Your task to perform on an android device: turn pop-ups off in chrome Image 0: 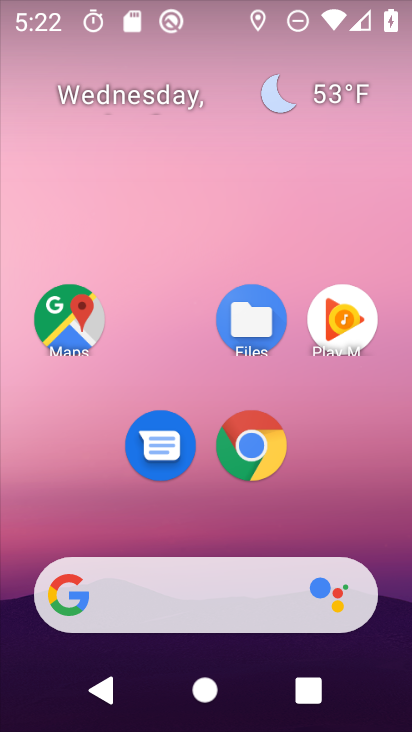
Step 0: drag from (303, 536) to (244, 5)
Your task to perform on an android device: turn pop-ups off in chrome Image 1: 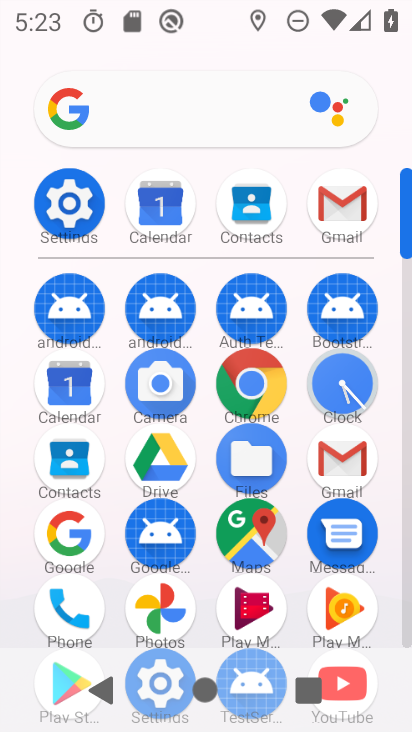
Step 1: click (270, 394)
Your task to perform on an android device: turn pop-ups off in chrome Image 2: 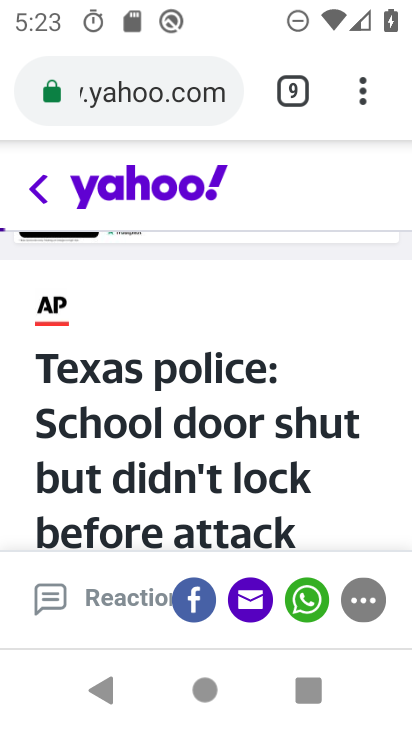
Step 2: click (359, 88)
Your task to perform on an android device: turn pop-ups off in chrome Image 3: 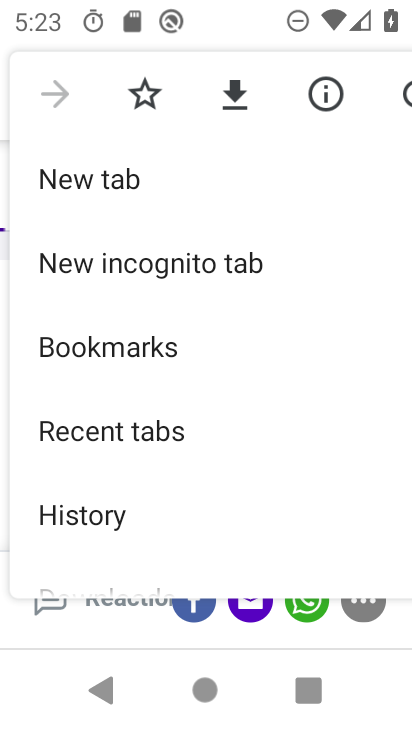
Step 3: drag from (274, 467) to (266, 231)
Your task to perform on an android device: turn pop-ups off in chrome Image 4: 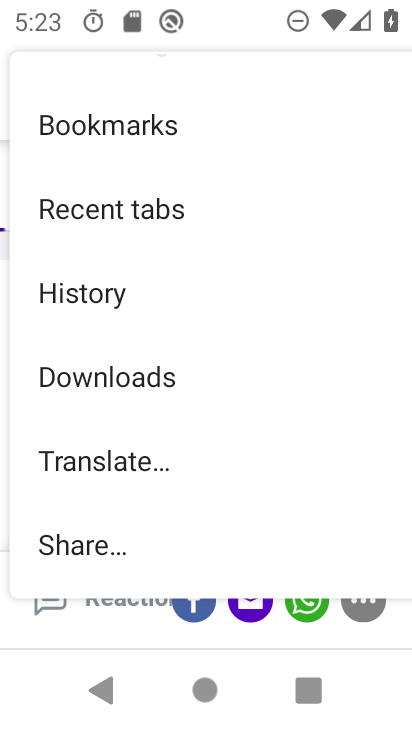
Step 4: drag from (242, 584) to (234, 322)
Your task to perform on an android device: turn pop-ups off in chrome Image 5: 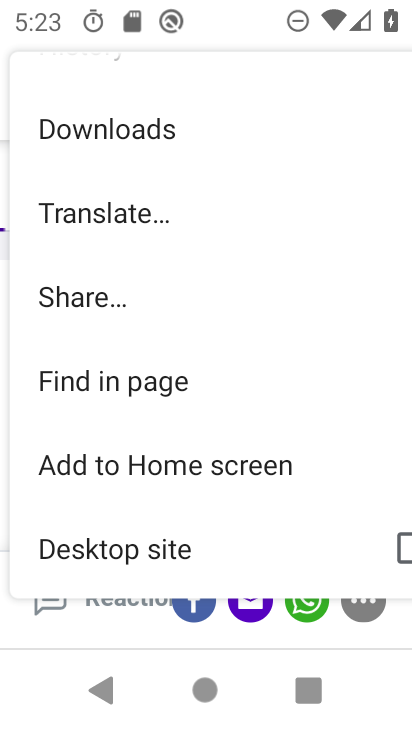
Step 5: drag from (268, 545) to (288, 260)
Your task to perform on an android device: turn pop-ups off in chrome Image 6: 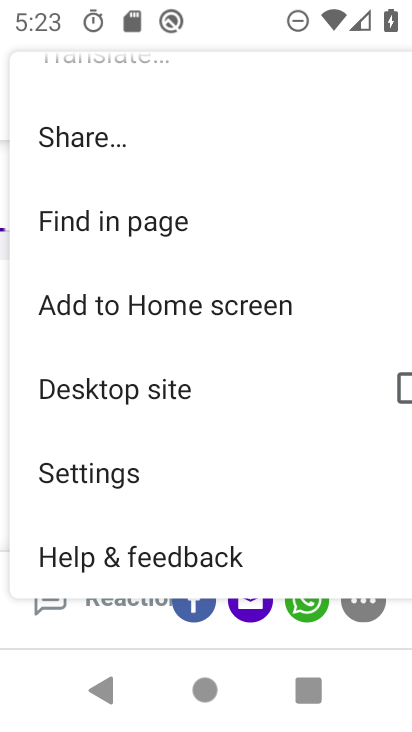
Step 6: click (141, 465)
Your task to perform on an android device: turn pop-ups off in chrome Image 7: 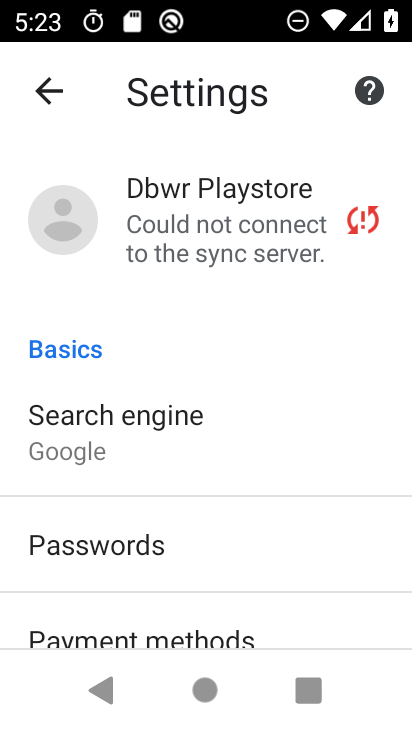
Step 7: drag from (174, 570) to (172, 183)
Your task to perform on an android device: turn pop-ups off in chrome Image 8: 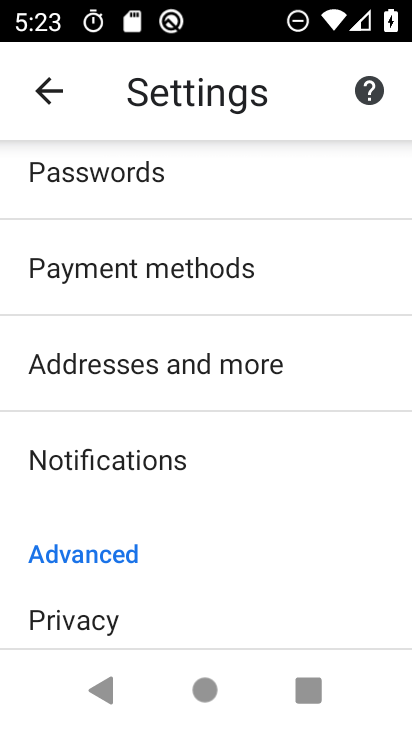
Step 8: drag from (315, 532) to (304, 244)
Your task to perform on an android device: turn pop-ups off in chrome Image 9: 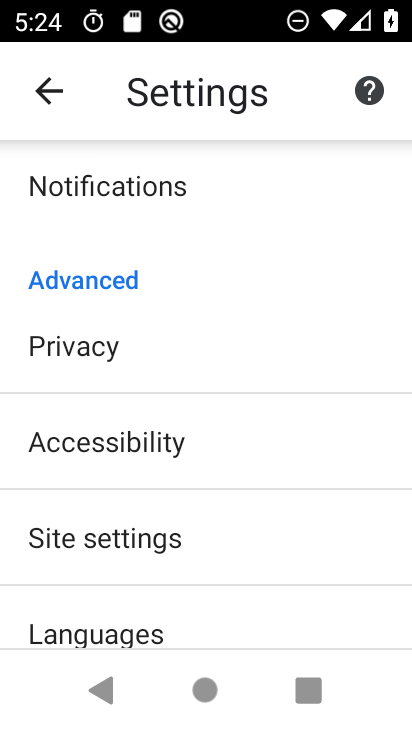
Step 9: click (255, 540)
Your task to perform on an android device: turn pop-ups off in chrome Image 10: 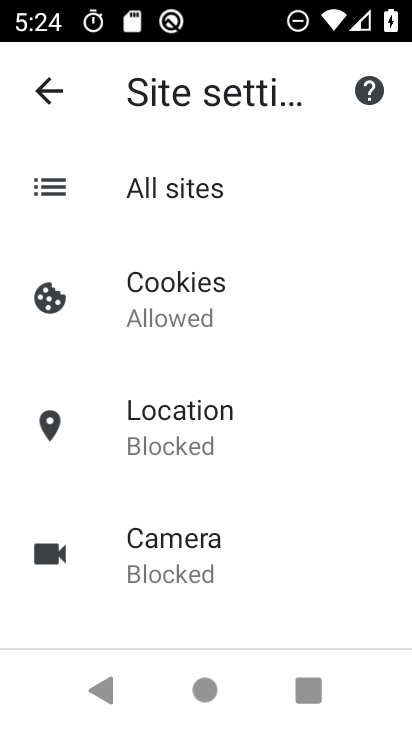
Step 10: drag from (255, 540) to (242, 227)
Your task to perform on an android device: turn pop-ups off in chrome Image 11: 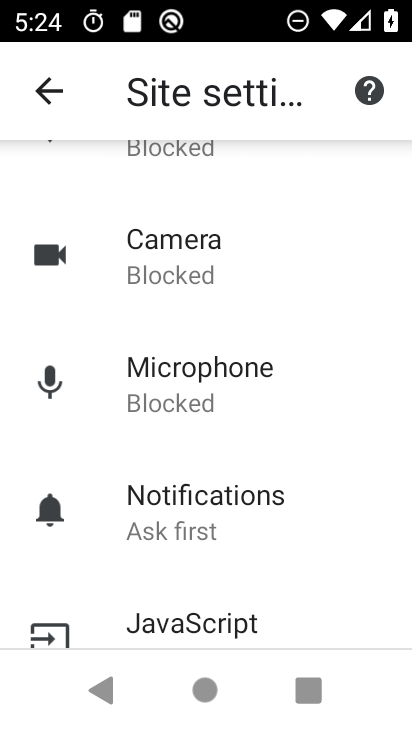
Step 11: drag from (311, 566) to (283, 346)
Your task to perform on an android device: turn pop-ups off in chrome Image 12: 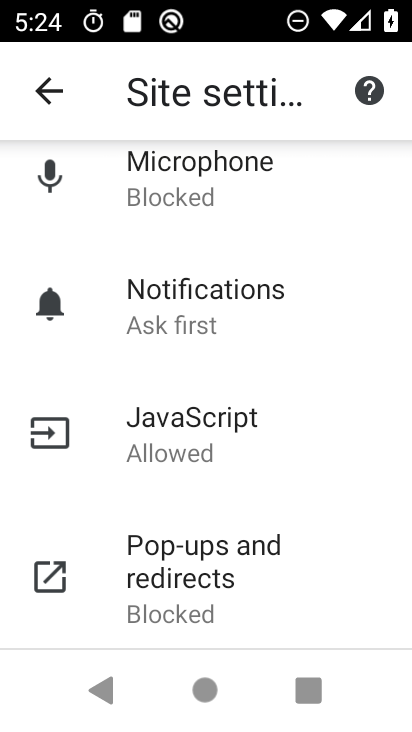
Step 12: click (237, 565)
Your task to perform on an android device: turn pop-ups off in chrome Image 13: 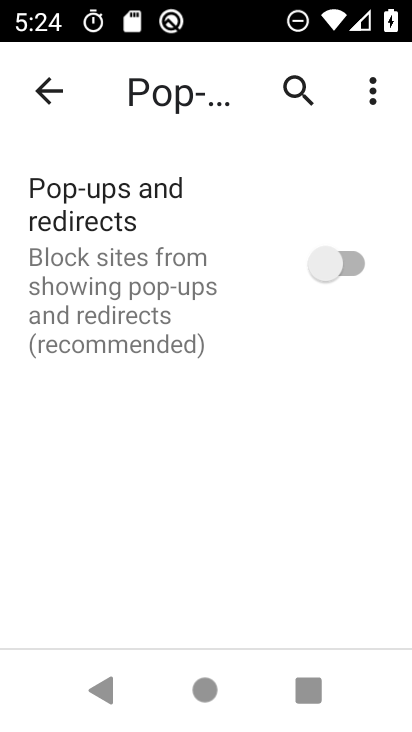
Step 13: task complete